Your task to perform on an android device: Go to display settings Image 0: 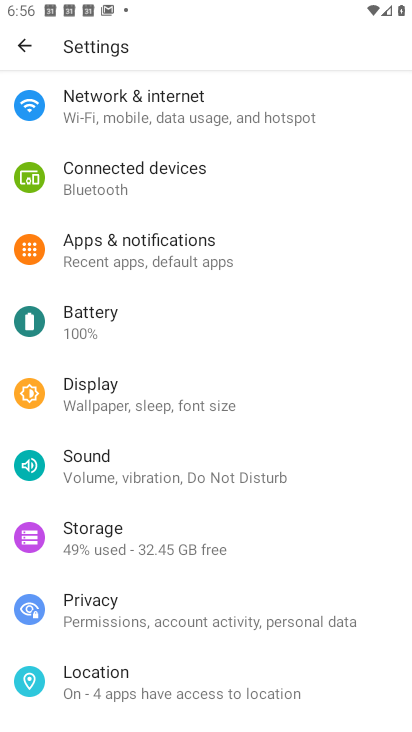
Step 0: click (88, 387)
Your task to perform on an android device: Go to display settings Image 1: 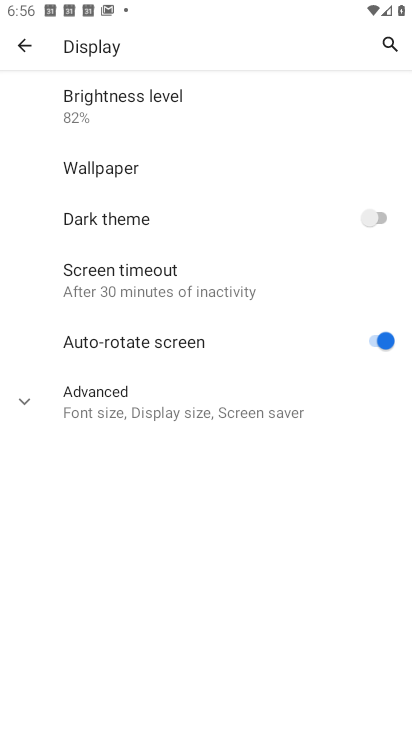
Step 1: click (79, 395)
Your task to perform on an android device: Go to display settings Image 2: 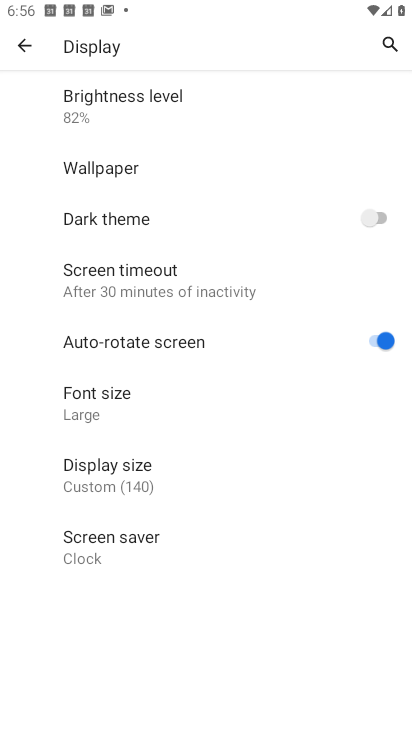
Step 2: click (79, 395)
Your task to perform on an android device: Go to display settings Image 3: 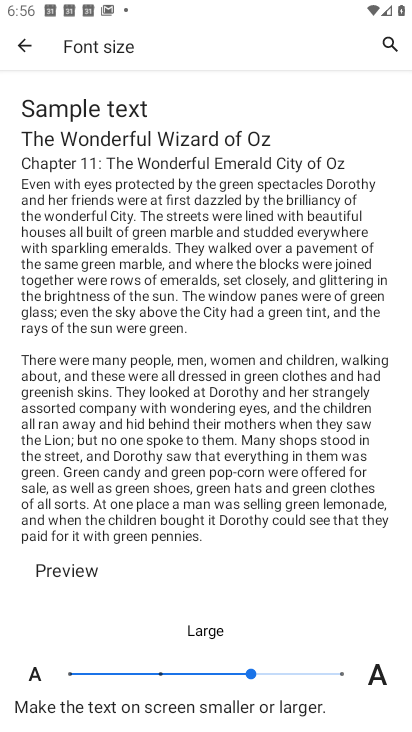
Step 3: task complete